Your task to perform on an android device: clear all cookies in the chrome app Image 0: 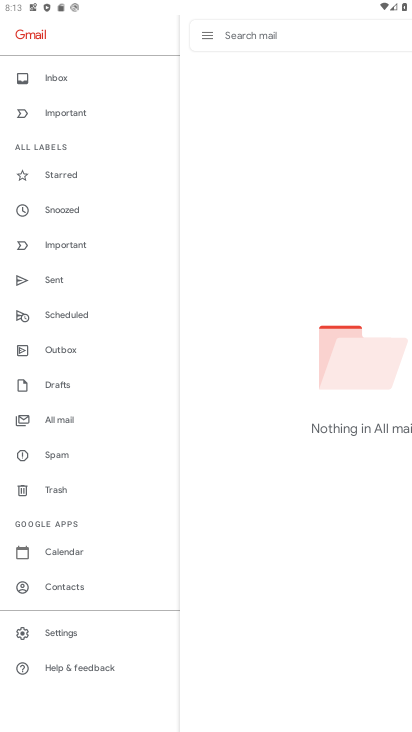
Step 0: press home button
Your task to perform on an android device: clear all cookies in the chrome app Image 1: 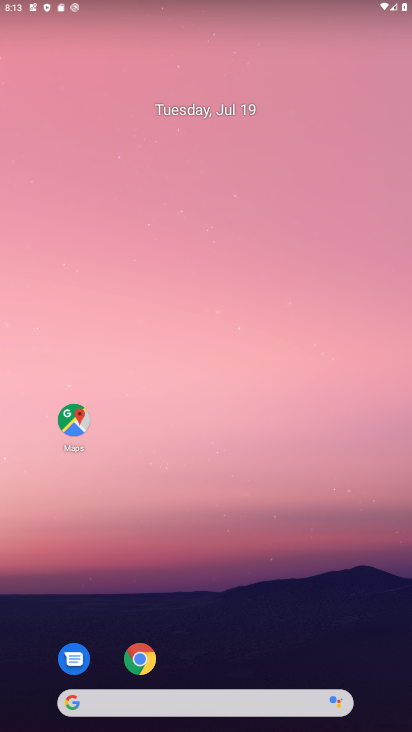
Step 1: click (143, 664)
Your task to perform on an android device: clear all cookies in the chrome app Image 2: 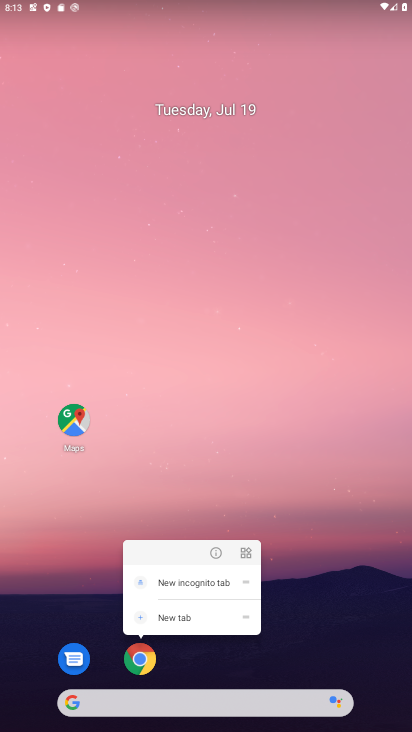
Step 2: click (142, 649)
Your task to perform on an android device: clear all cookies in the chrome app Image 3: 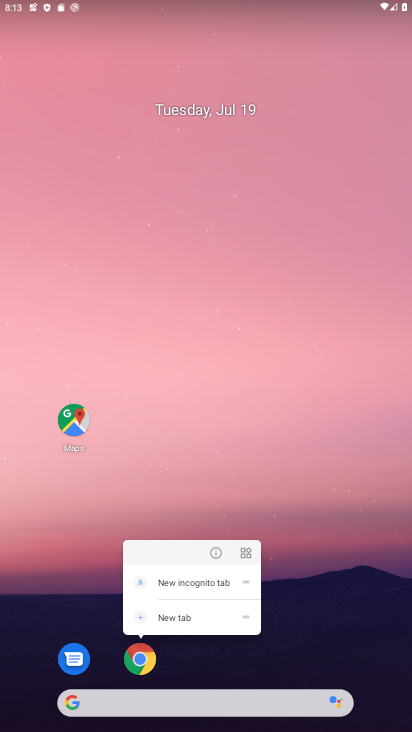
Step 3: click (139, 657)
Your task to perform on an android device: clear all cookies in the chrome app Image 4: 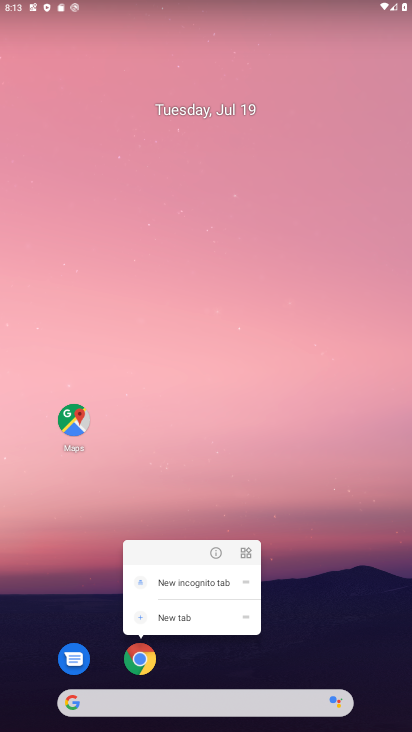
Step 4: click (138, 663)
Your task to perform on an android device: clear all cookies in the chrome app Image 5: 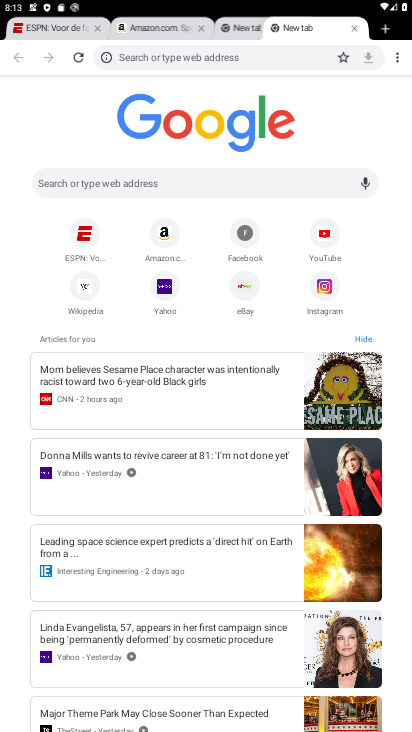
Step 5: click (398, 60)
Your task to perform on an android device: clear all cookies in the chrome app Image 6: 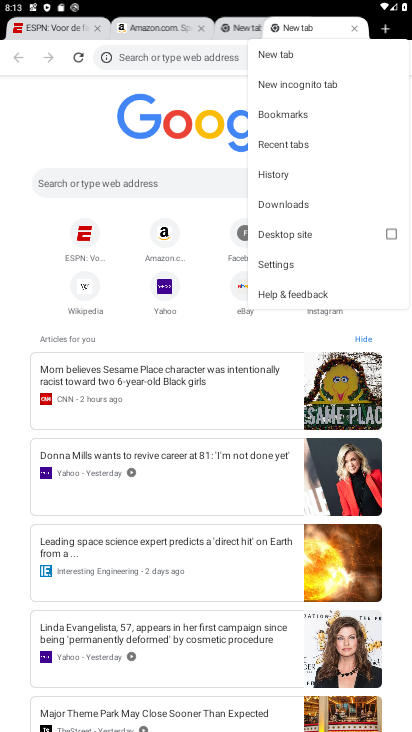
Step 6: click (276, 264)
Your task to perform on an android device: clear all cookies in the chrome app Image 7: 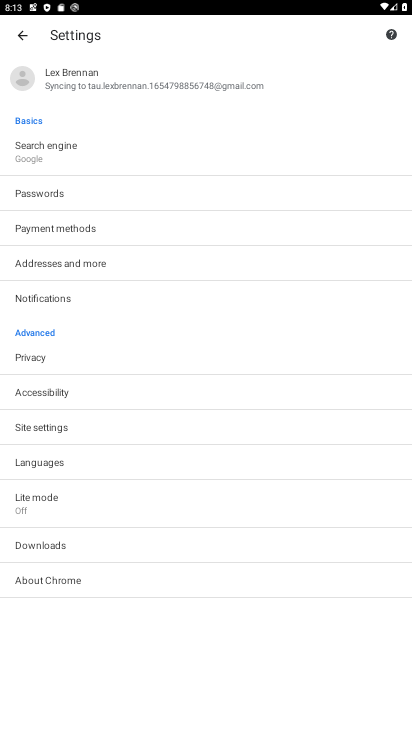
Step 7: click (29, 347)
Your task to perform on an android device: clear all cookies in the chrome app Image 8: 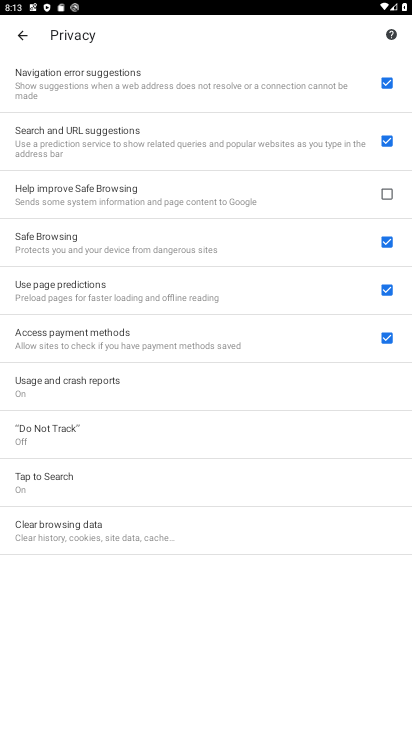
Step 8: click (77, 536)
Your task to perform on an android device: clear all cookies in the chrome app Image 9: 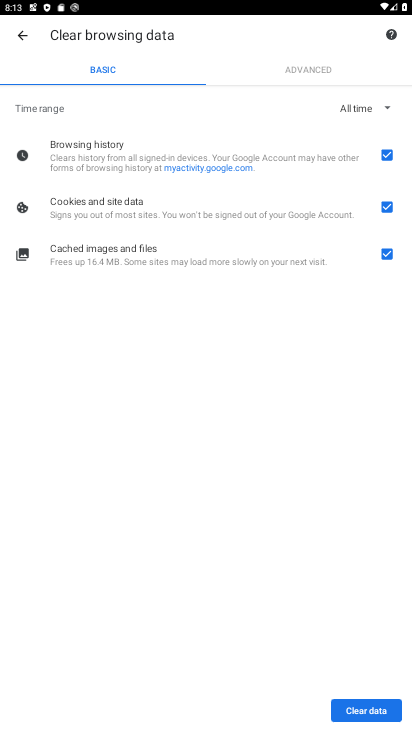
Step 9: click (355, 704)
Your task to perform on an android device: clear all cookies in the chrome app Image 10: 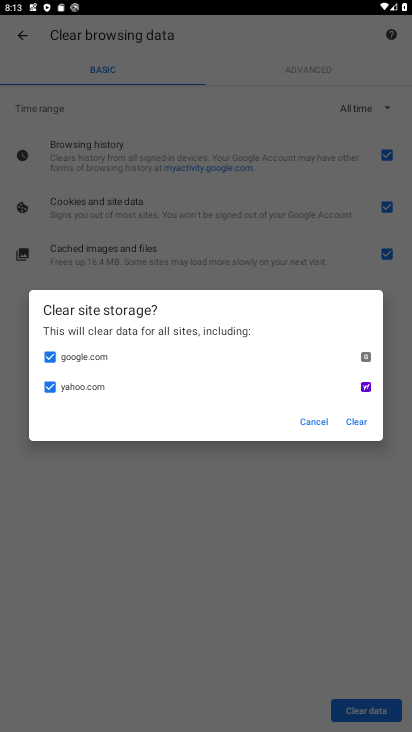
Step 10: click (355, 421)
Your task to perform on an android device: clear all cookies in the chrome app Image 11: 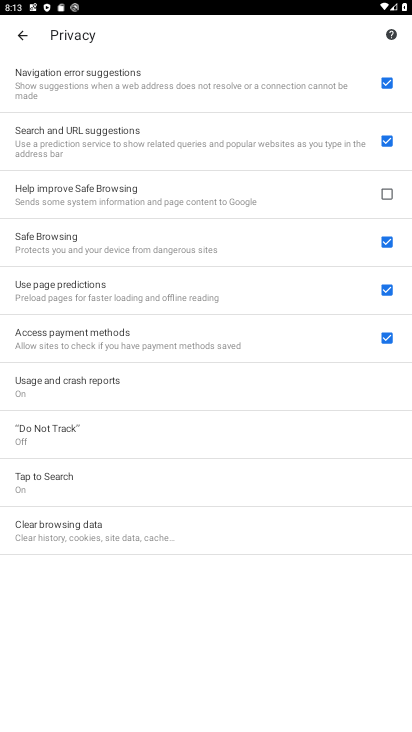
Step 11: task complete